Your task to perform on an android device: Go to Reddit.com Image 0: 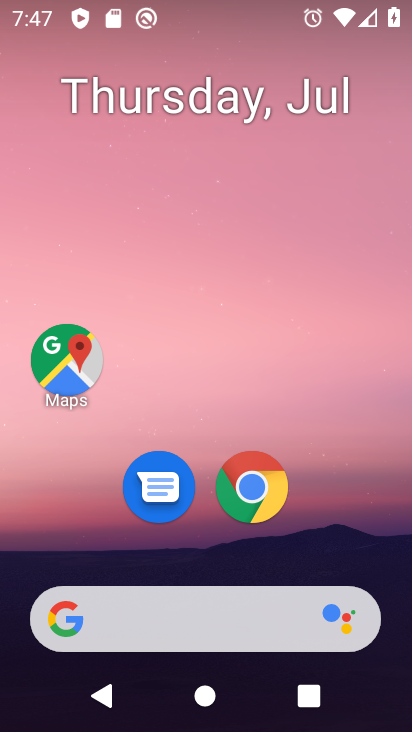
Step 0: drag from (245, 616) to (252, 290)
Your task to perform on an android device: Go to Reddit.com Image 1: 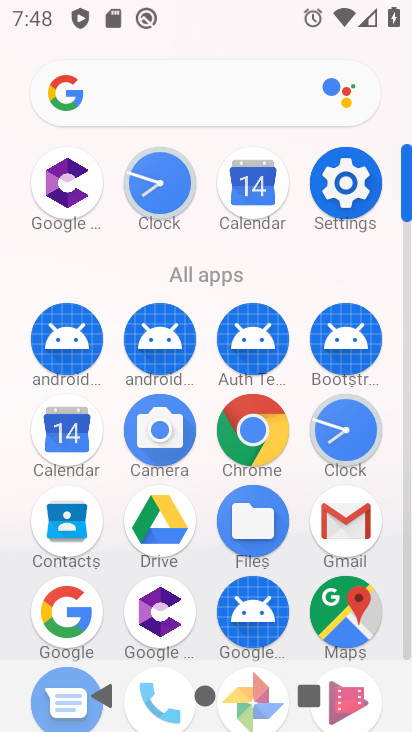
Step 1: click (249, 434)
Your task to perform on an android device: Go to Reddit.com Image 2: 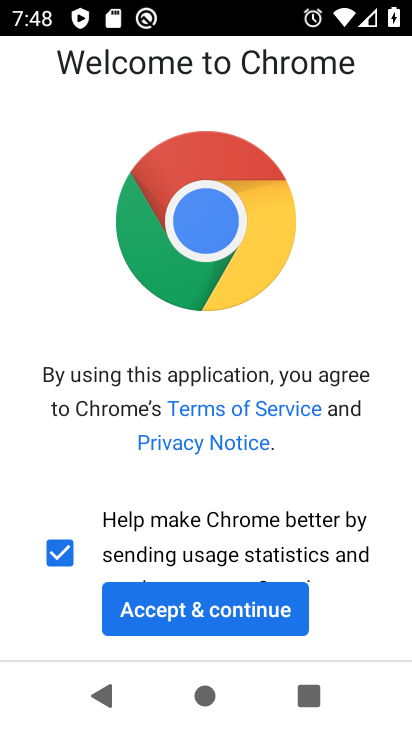
Step 2: click (230, 597)
Your task to perform on an android device: Go to Reddit.com Image 3: 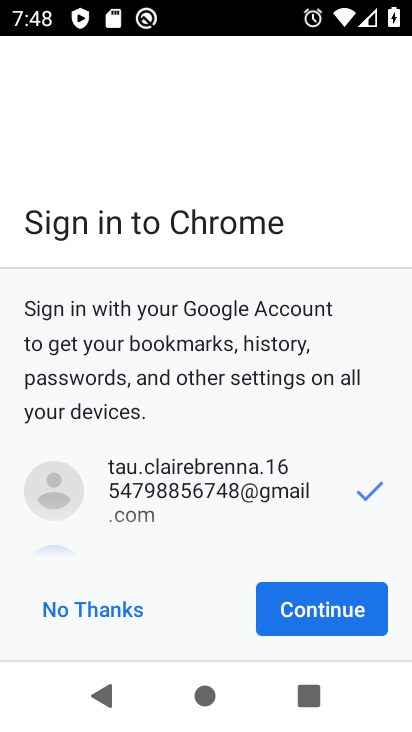
Step 3: click (337, 609)
Your task to perform on an android device: Go to Reddit.com Image 4: 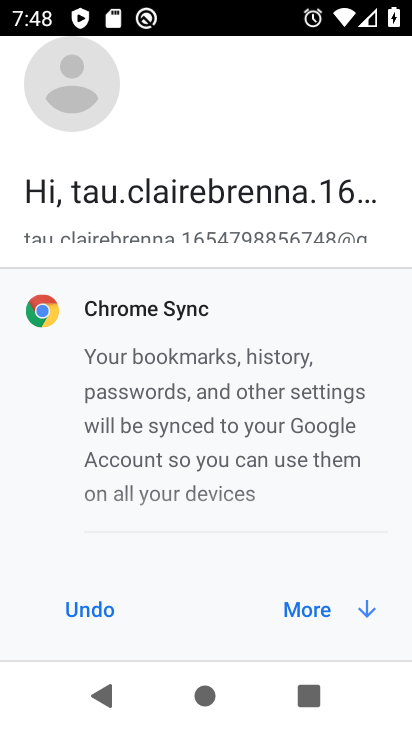
Step 4: click (326, 615)
Your task to perform on an android device: Go to Reddit.com Image 5: 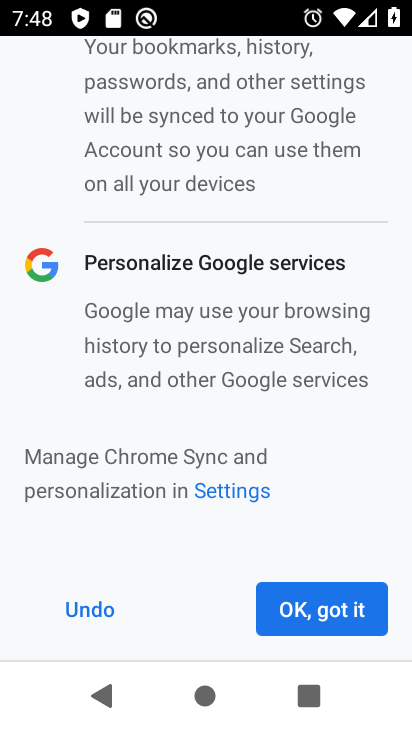
Step 5: click (326, 615)
Your task to perform on an android device: Go to Reddit.com Image 6: 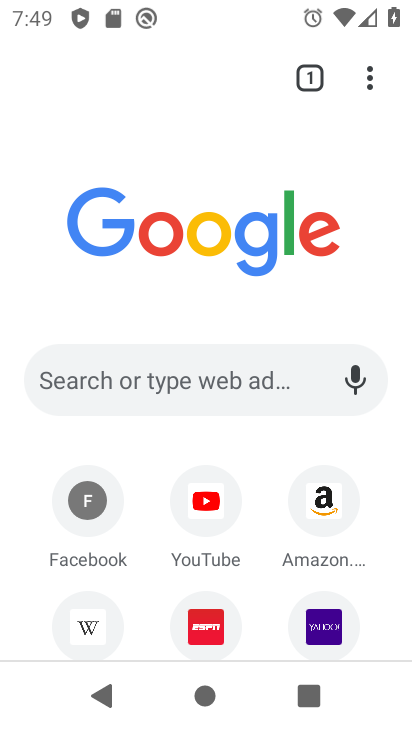
Step 6: click (184, 390)
Your task to perform on an android device: Go to Reddit.com Image 7: 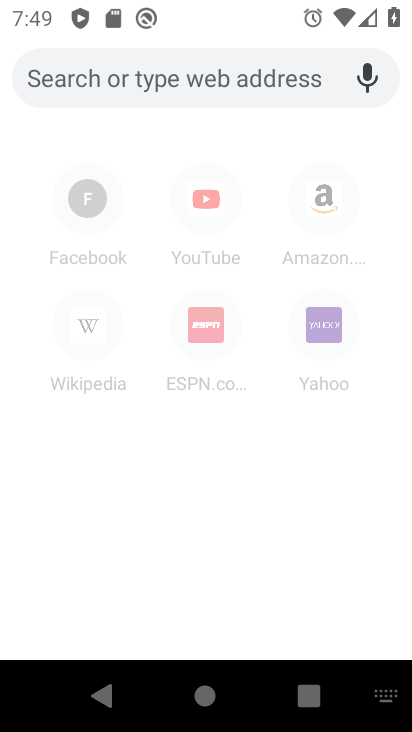
Step 7: type "reddit"
Your task to perform on an android device: Go to Reddit.com Image 8: 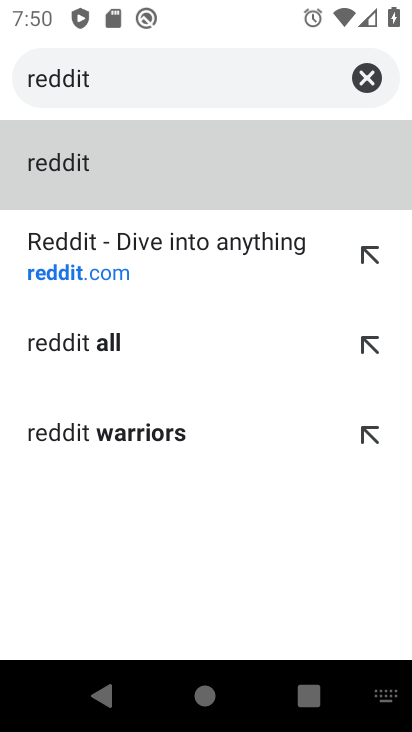
Step 8: click (218, 245)
Your task to perform on an android device: Go to Reddit.com Image 9: 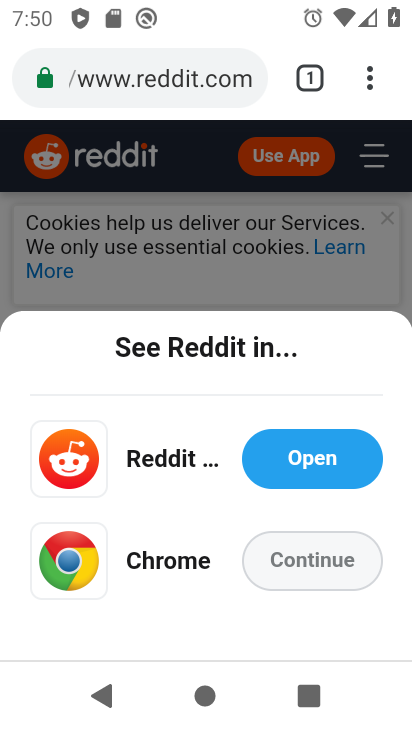
Step 9: task complete